Your task to perform on an android device: Clear the shopping cart on amazon.com. Add "razer huntsman" to the cart on amazon.com, then select checkout. Image 0: 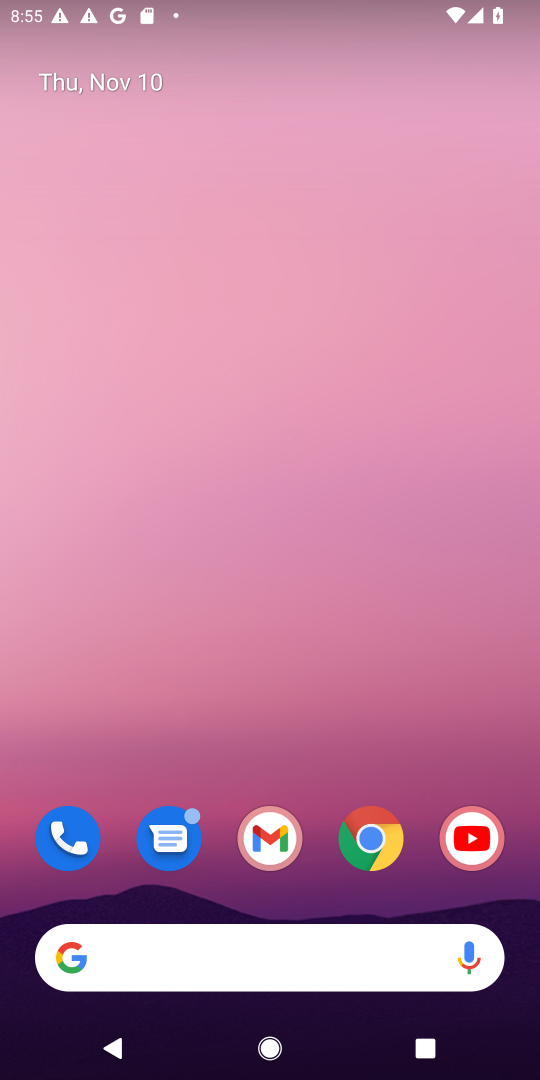
Step 0: drag from (309, 891) to (372, 21)
Your task to perform on an android device: Clear the shopping cart on amazon.com. Add "razer huntsman" to the cart on amazon.com, then select checkout. Image 1: 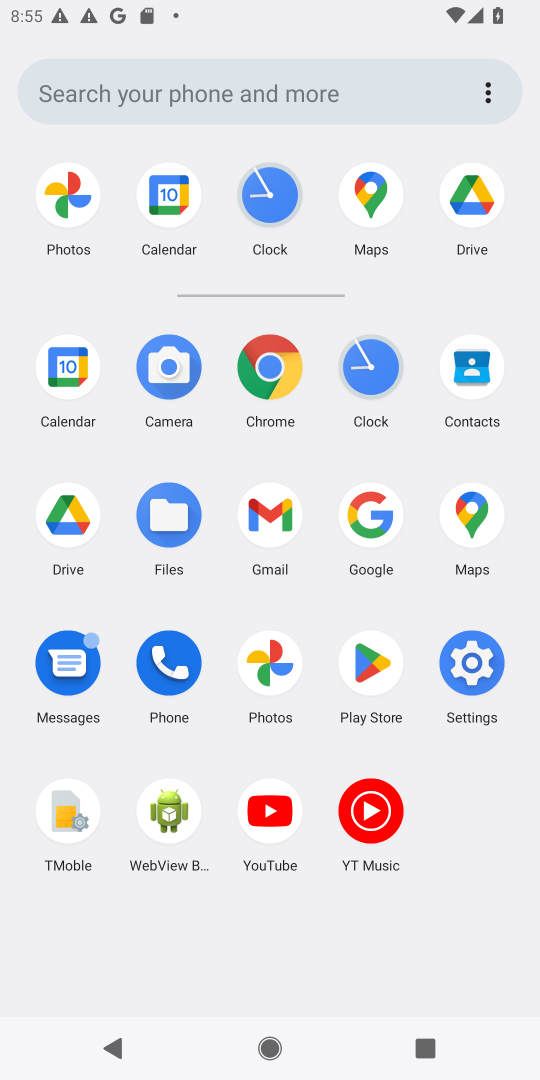
Step 1: click (269, 382)
Your task to perform on an android device: Clear the shopping cart on amazon.com. Add "razer huntsman" to the cart on amazon.com, then select checkout. Image 2: 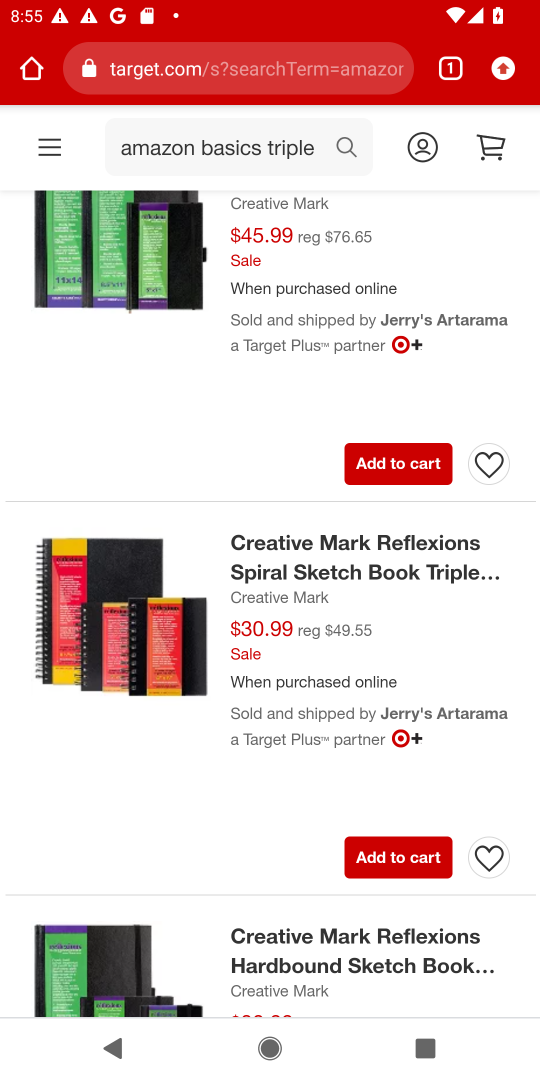
Step 2: click (296, 76)
Your task to perform on an android device: Clear the shopping cart on amazon.com. Add "razer huntsman" to the cart on amazon.com, then select checkout. Image 3: 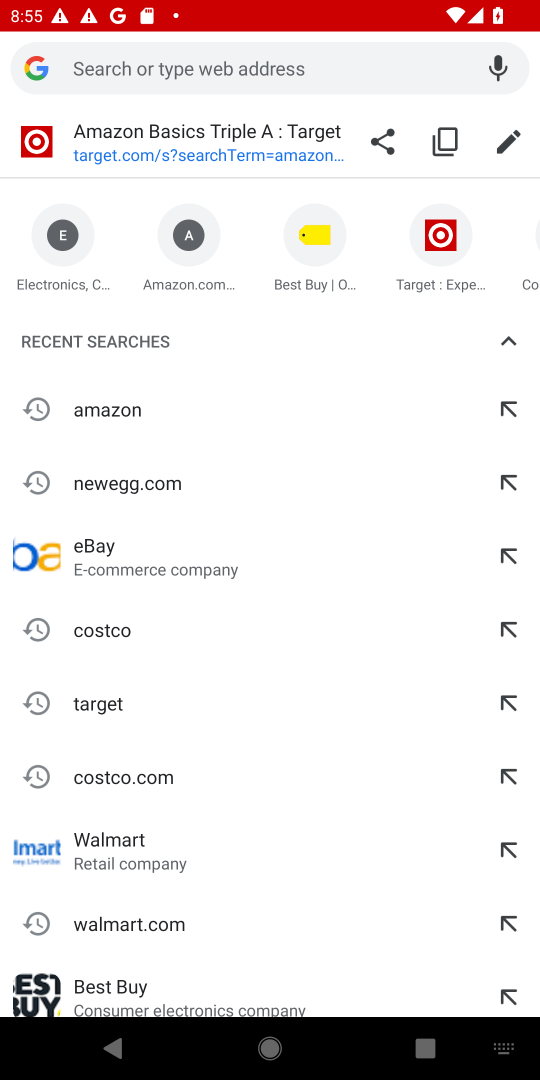
Step 3: type "amazon.com"
Your task to perform on an android device: Clear the shopping cart on amazon.com. Add "razer huntsman" to the cart on amazon.com, then select checkout. Image 4: 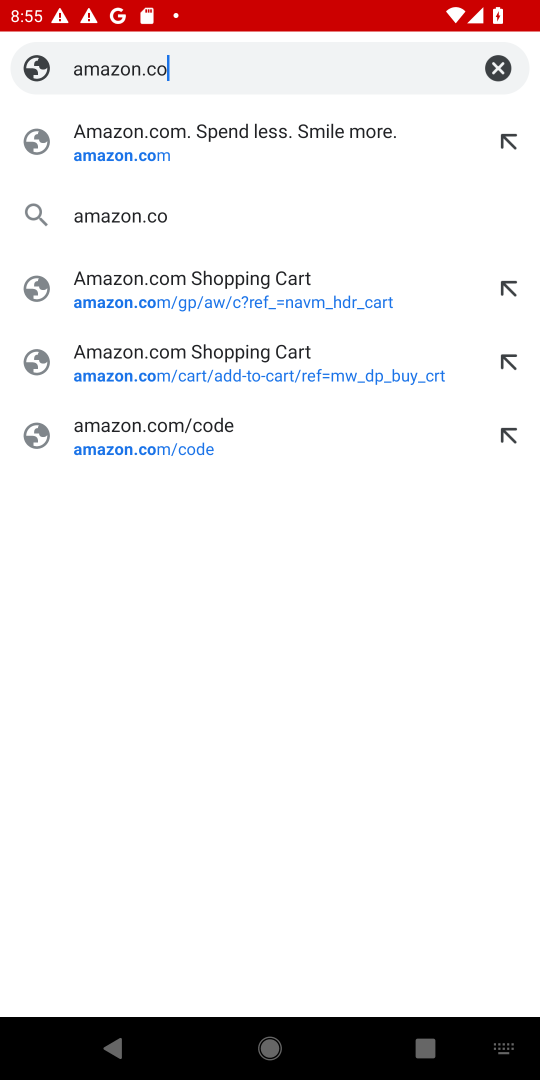
Step 4: press enter
Your task to perform on an android device: Clear the shopping cart on amazon.com. Add "razer huntsman" to the cart on amazon.com, then select checkout. Image 5: 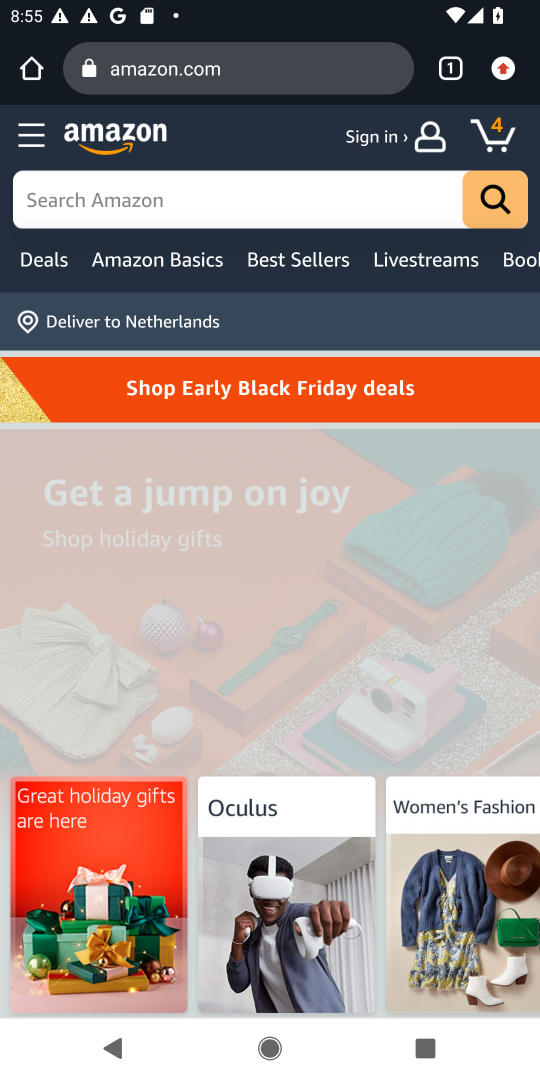
Step 5: click (492, 117)
Your task to perform on an android device: Clear the shopping cart on amazon.com. Add "razer huntsman" to the cart on amazon.com, then select checkout. Image 6: 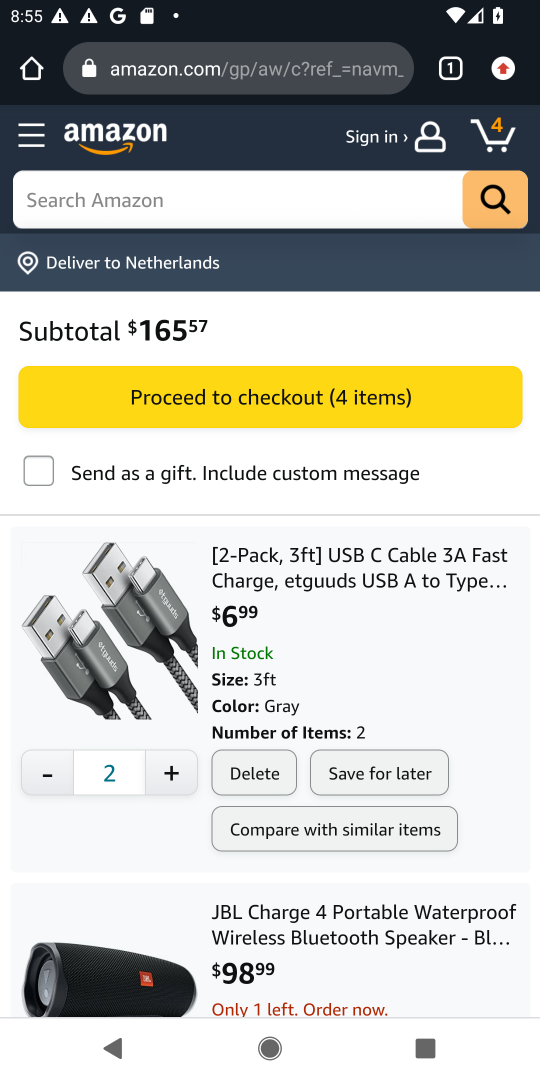
Step 6: click (255, 771)
Your task to perform on an android device: Clear the shopping cart on amazon.com. Add "razer huntsman" to the cart on amazon.com, then select checkout. Image 7: 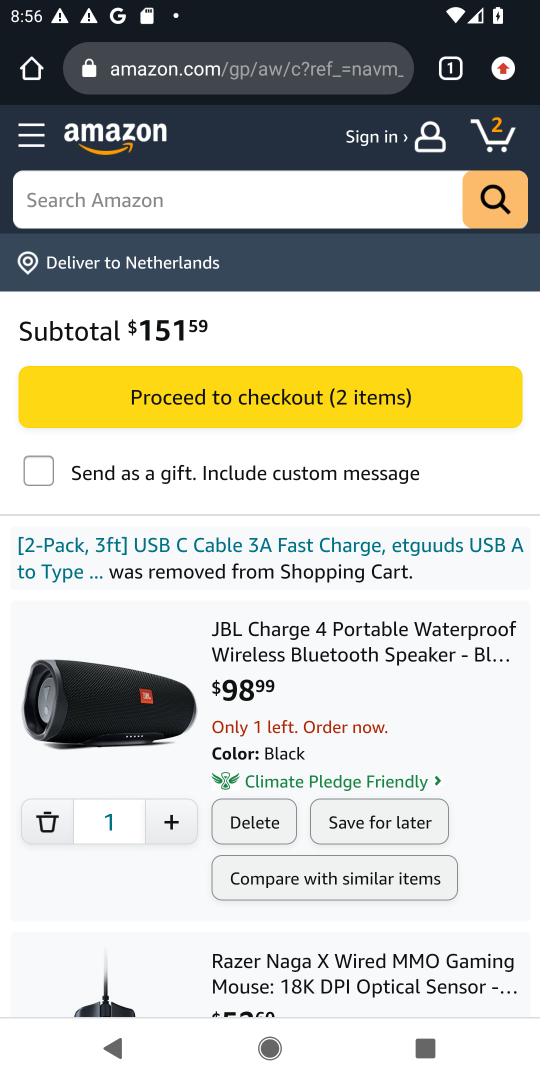
Step 7: click (261, 825)
Your task to perform on an android device: Clear the shopping cart on amazon.com. Add "razer huntsman" to the cart on amazon.com, then select checkout. Image 8: 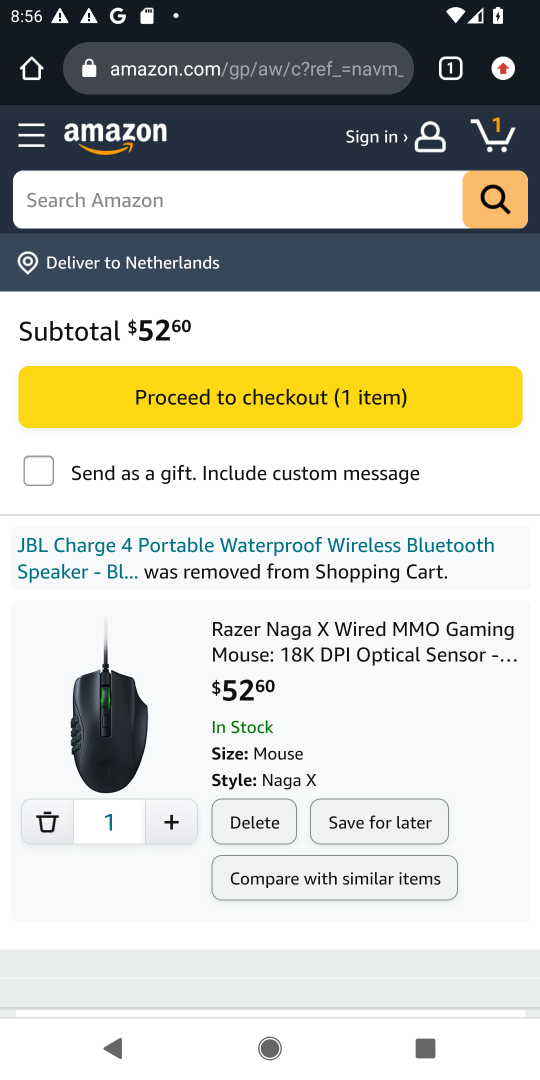
Step 8: click (261, 825)
Your task to perform on an android device: Clear the shopping cart on amazon.com. Add "razer huntsman" to the cart on amazon.com, then select checkout. Image 9: 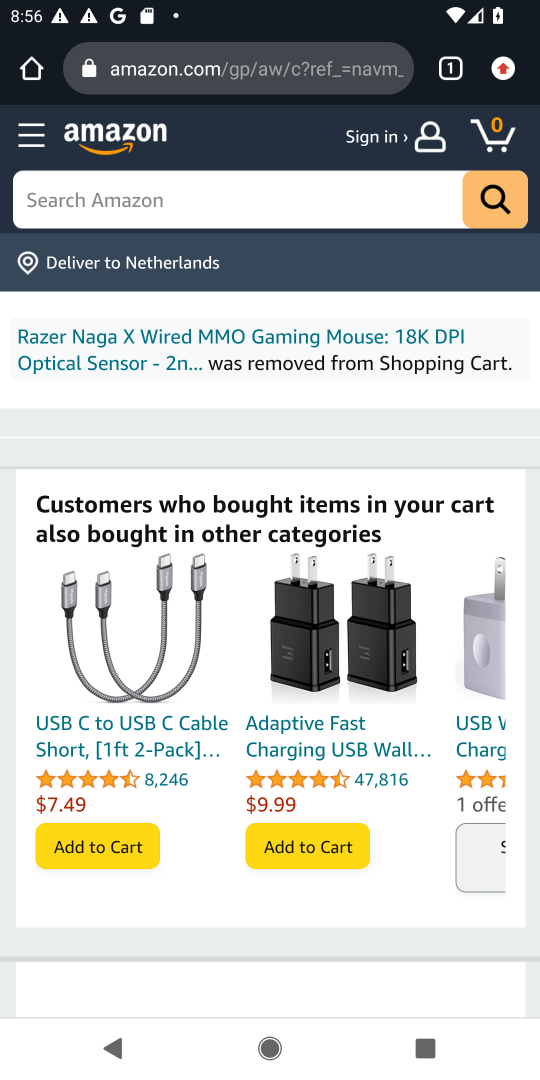
Step 9: click (157, 200)
Your task to perform on an android device: Clear the shopping cart on amazon.com. Add "razer huntsman" to the cart on amazon.com, then select checkout. Image 10: 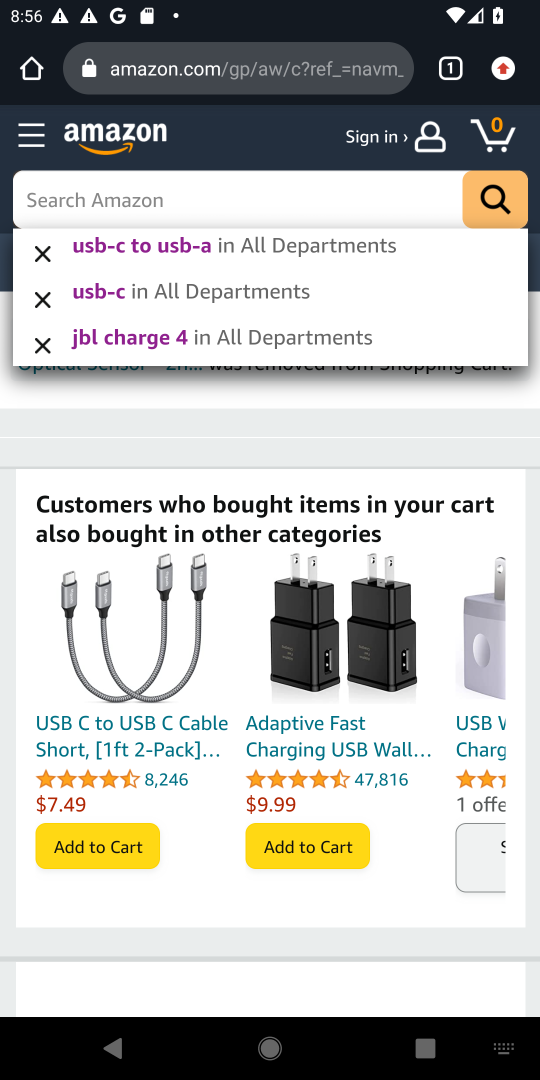
Step 10: type "razer huntsman"
Your task to perform on an android device: Clear the shopping cart on amazon.com. Add "razer huntsman" to the cart on amazon.com, then select checkout. Image 11: 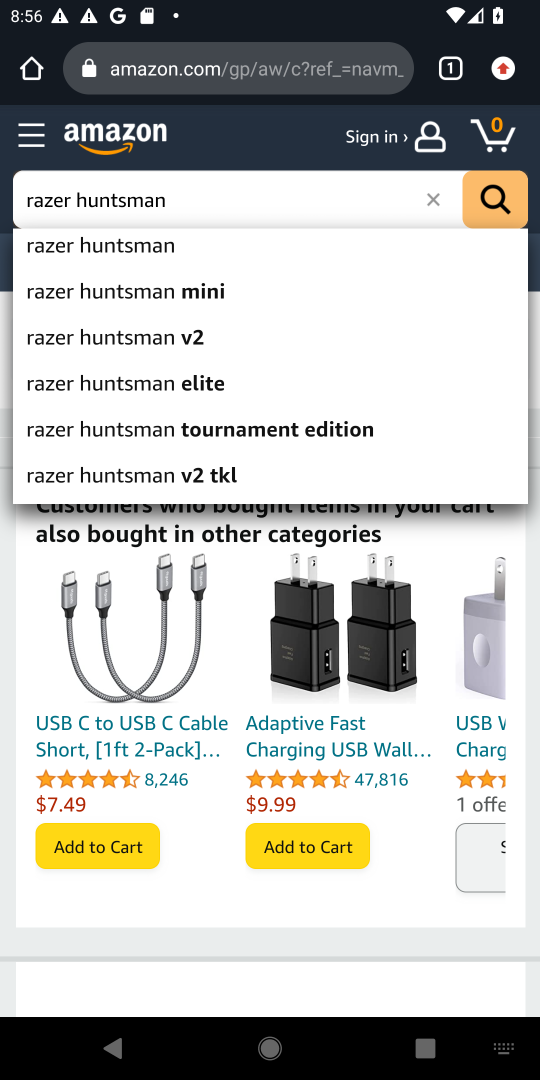
Step 11: press enter
Your task to perform on an android device: Clear the shopping cart on amazon.com. Add "razer huntsman" to the cart on amazon.com, then select checkout. Image 12: 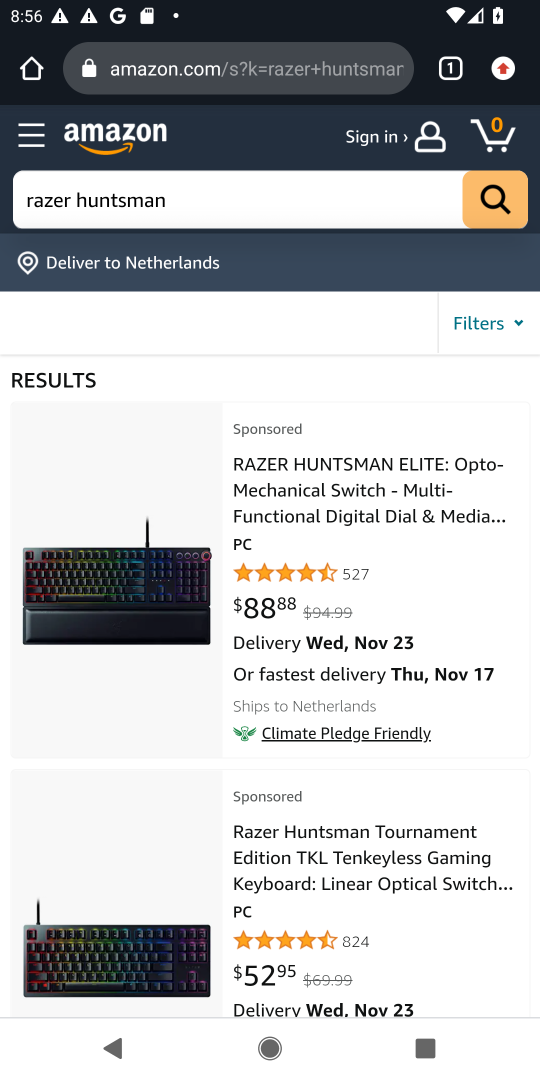
Step 12: drag from (305, 844) to (310, 213)
Your task to perform on an android device: Clear the shopping cart on amazon.com. Add "razer huntsman" to the cart on amazon.com, then select checkout. Image 13: 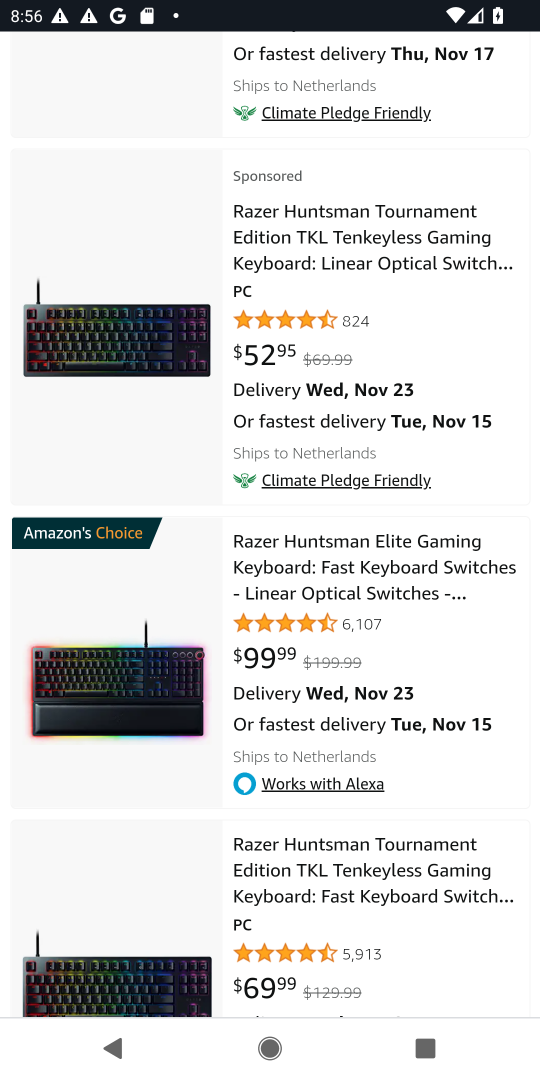
Step 13: click (417, 545)
Your task to perform on an android device: Clear the shopping cart on amazon.com. Add "razer huntsman" to the cart on amazon.com, then select checkout. Image 14: 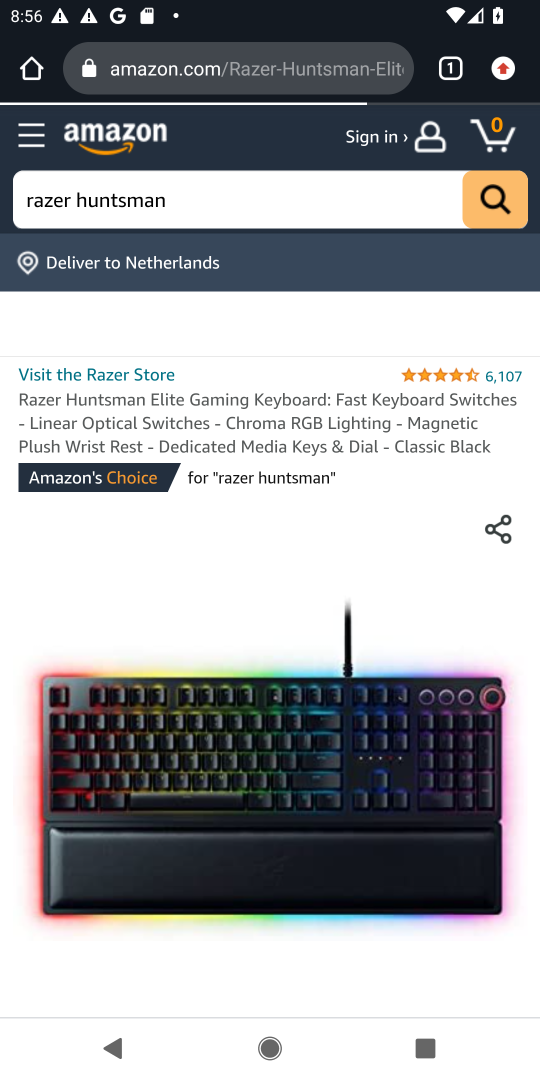
Step 14: drag from (302, 735) to (316, 226)
Your task to perform on an android device: Clear the shopping cart on amazon.com. Add "razer huntsman" to the cart on amazon.com, then select checkout. Image 15: 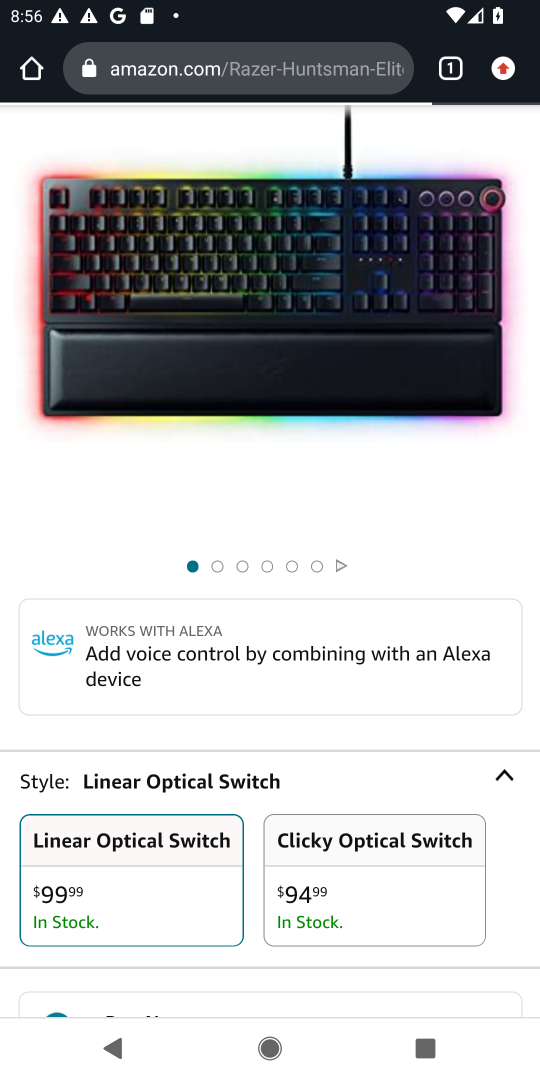
Step 15: drag from (327, 808) to (409, 249)
Your task to perform on an android device: Clear the shopping cart on amazon.com. Add "razer huntsman" to the cart on amazon.com, then select checkout. Image 16: 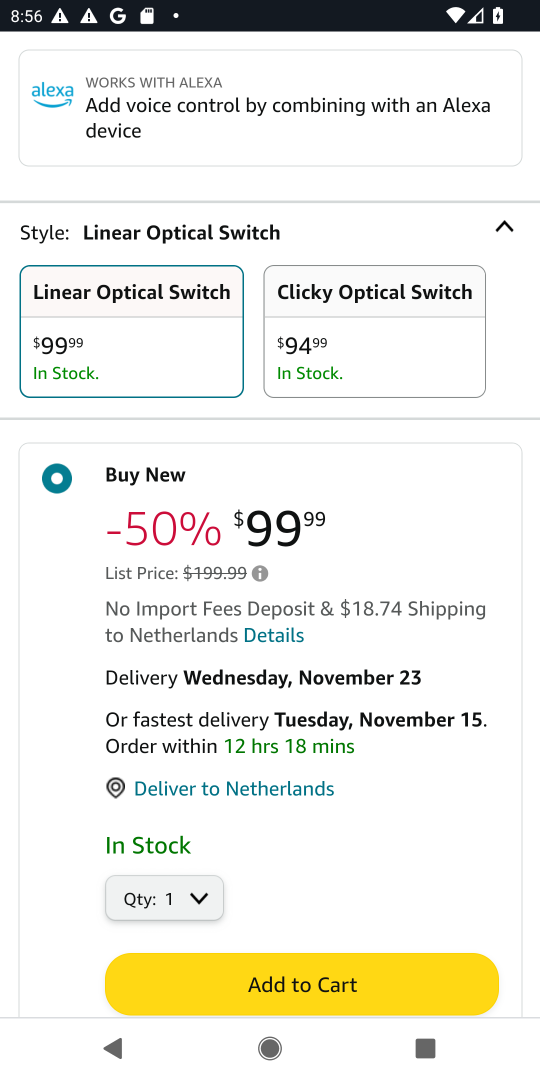
Step 16: drag from (314, 847) to (387, 438)
Your task to perform on an android device: Clear the shopping cart on amazon.com. Add "razer huntsman" to the cart on amazon.com, then select checkout. Image 17: 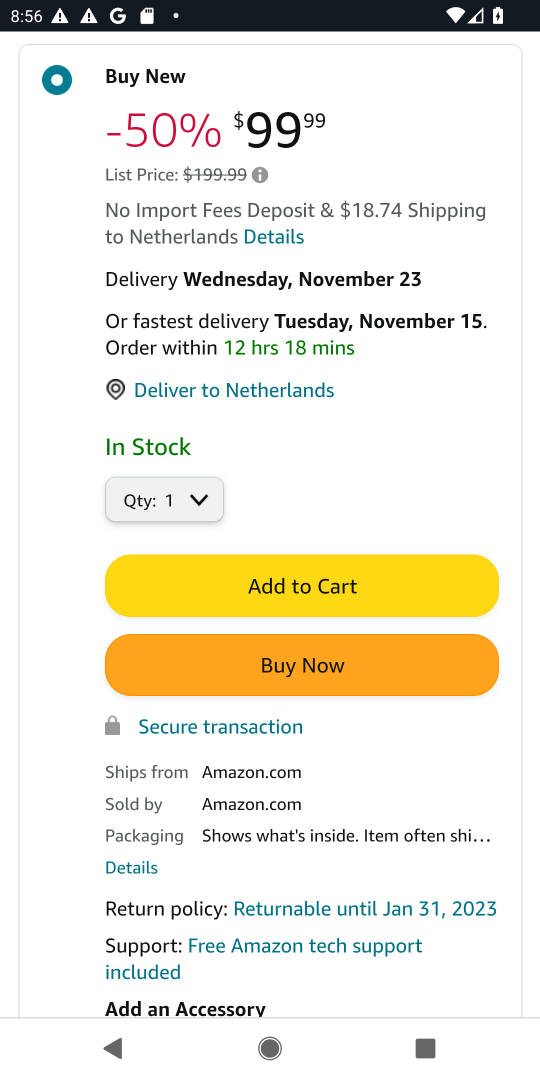
Step 17: click (359, 585)
Your task to perform on an android device: Clear the shopping cart on amazon.com. Add "razer huntsman" to the cart on amazon.com, then select checkout. Image 18: 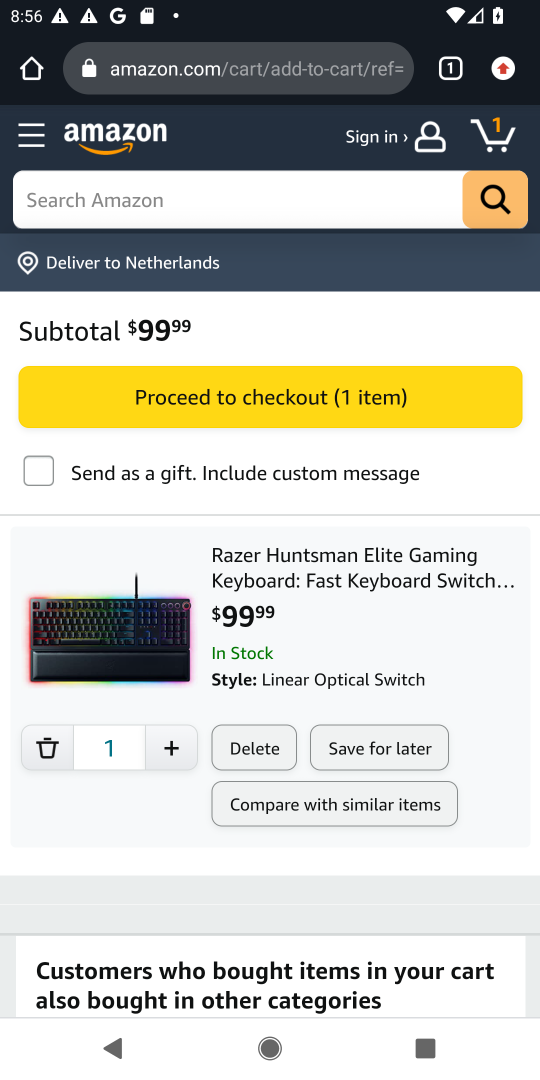
Step 18: click (226, 389)
Your task to perform on an android device: Clear the shopping cart on amazon.com. Add "razer huntsman" to the cart on amazon.com, then select checkout. Image 19: 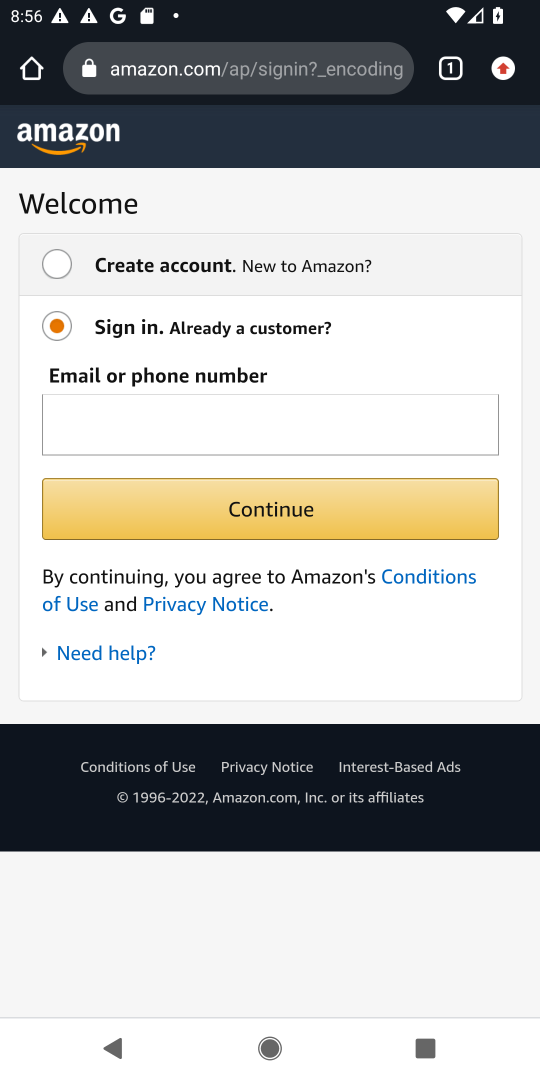
Step 19: task complete